Your task to perform on an android device: Open Reddit.com Image 0: 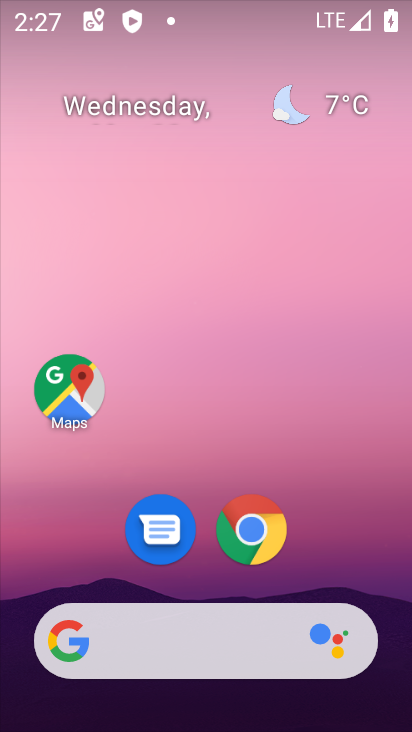
Step 0: drag from (352, 376) to (315, 39)
Your task to perform on an android device: Open Reddit.com Image 1: 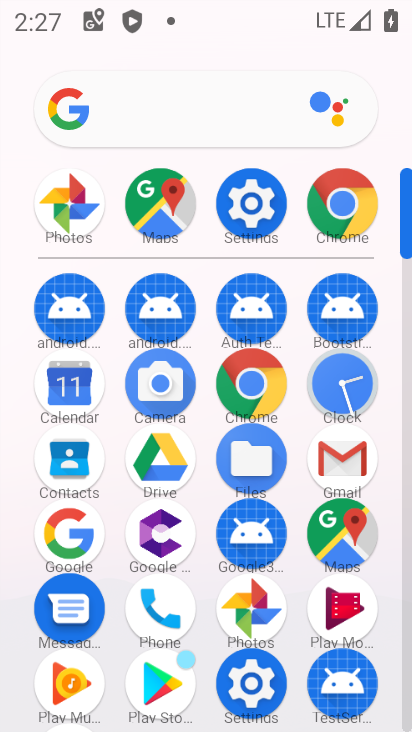
Step 1: click (330, 225)
Your task to perform on an android device: Open Reddit.com Image 2: 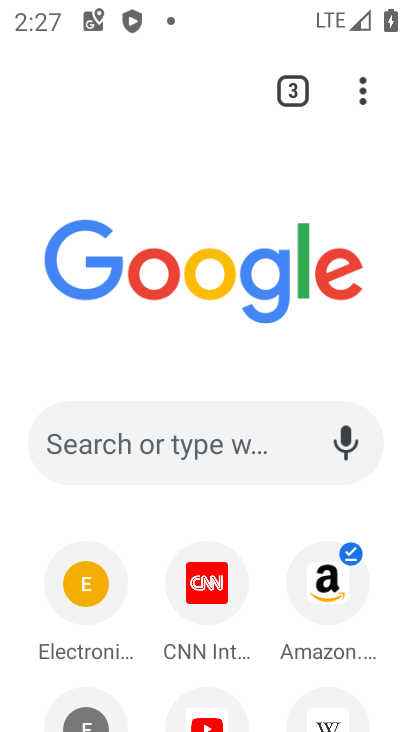
Step 2: click (201, 450)
Your task to perform on an android device: Open Reddit.com Image 3: 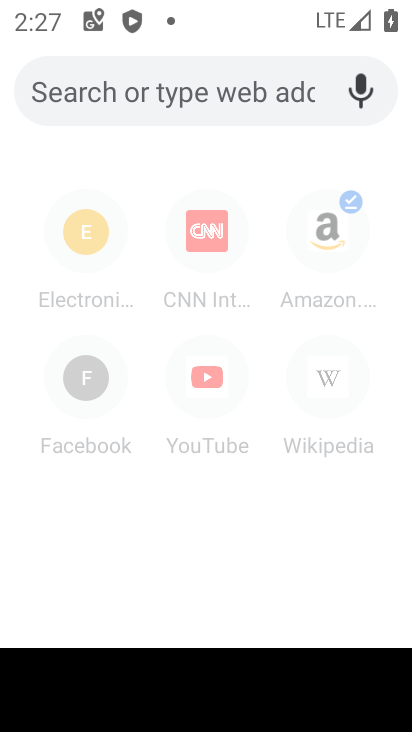
Step 3: type "reddit"
Your task to perform on an android device: Open Reddit.com Image 4: 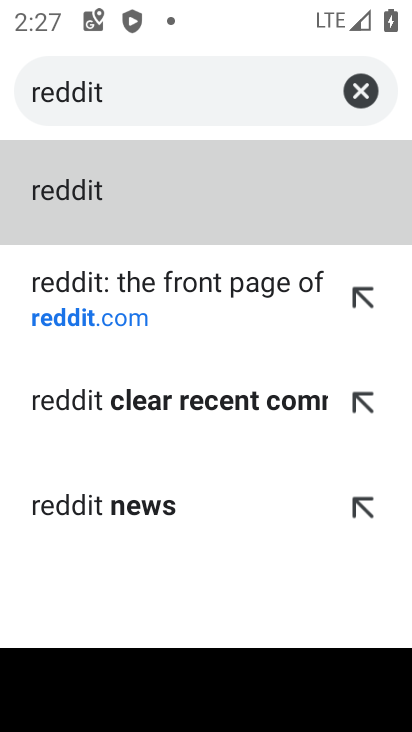
Step 4: click (123, 226)
Your task to perform on an android device: Open Reddit.com Image 5: 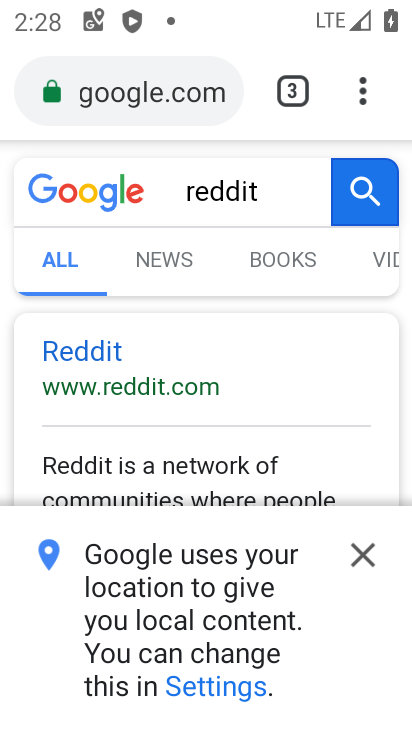
Step 5: click (101, 374)
Your task to perform on an android device: Open Reddit.com Image 6: 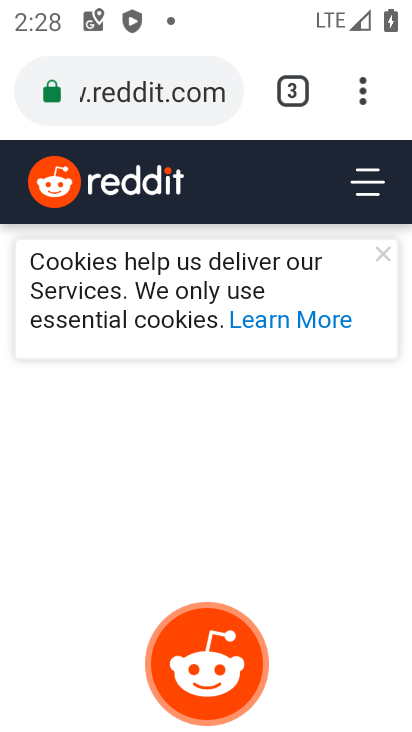
Step 6: task complete